Your task to perform on an android device: Do I have any events today? Image 0: 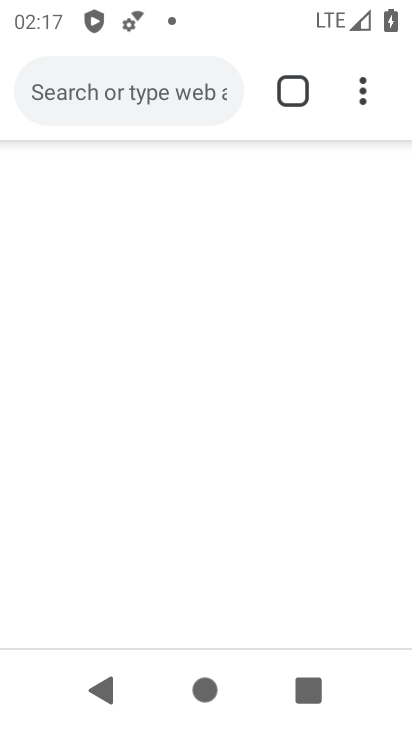
Step 0: press home button
Your task to perform on an android device: Do I have any events today? Image 1: 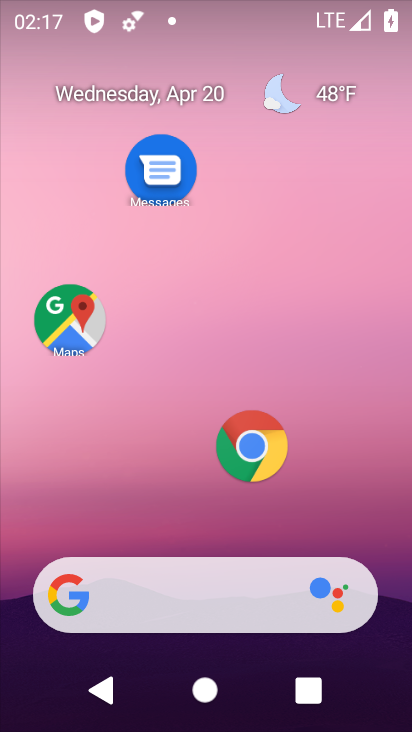
Step 1: drag from (221, 533) to (288, 16)
Your task to perform on an android device: Do I have any events today? Image 2: 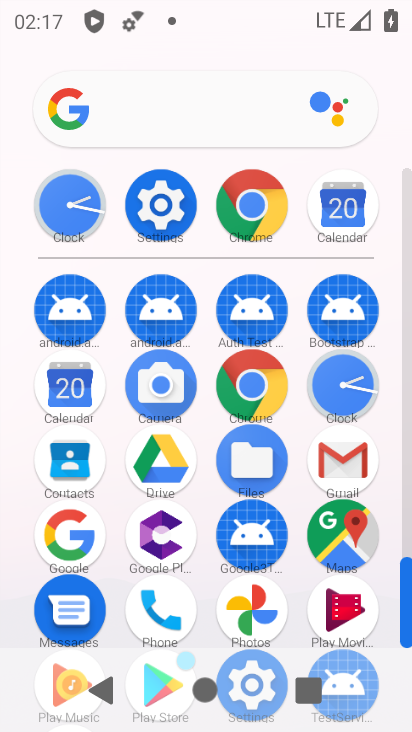
Step 2: click (70, 381)
Your task to perform on an android device: Do I have any events today? Image 3: 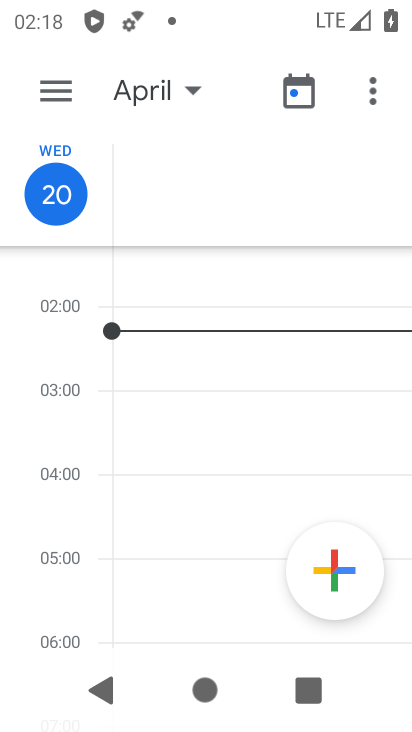
Step 3: click (59, 86)
Your task to perform on an android device: Do I have any events today? Image 4: 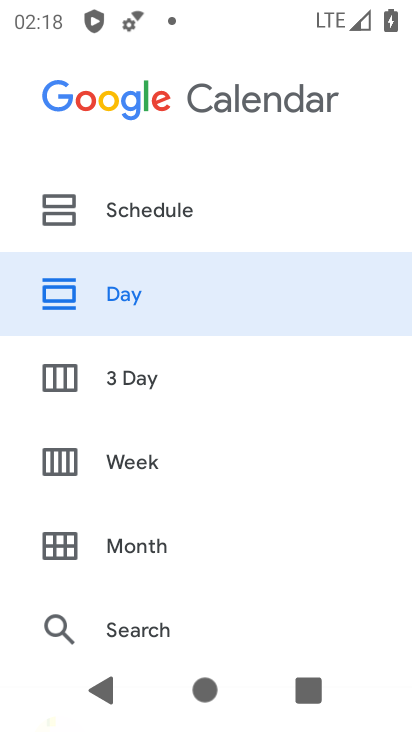
Step 4: drag from (78, 590) to (106, 170)
Your task to perform on an android device: Do I have any events today? Image 5: 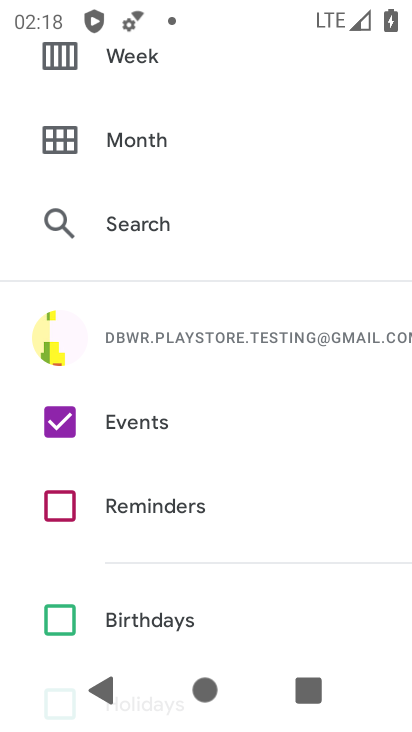
Step 5: drag from (162, 166) to (175, 717)
Your task to perform on an android device: Do I have any events today? Image 6: 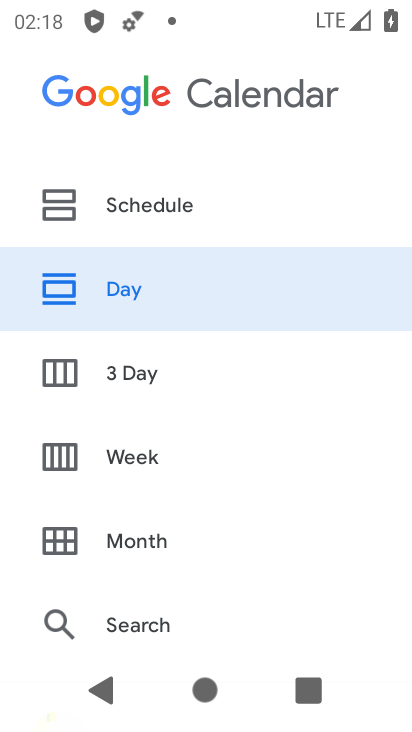
Step 6: click (99, 296)
Your task to perform on an android device: Do I have any events today? Image 7: 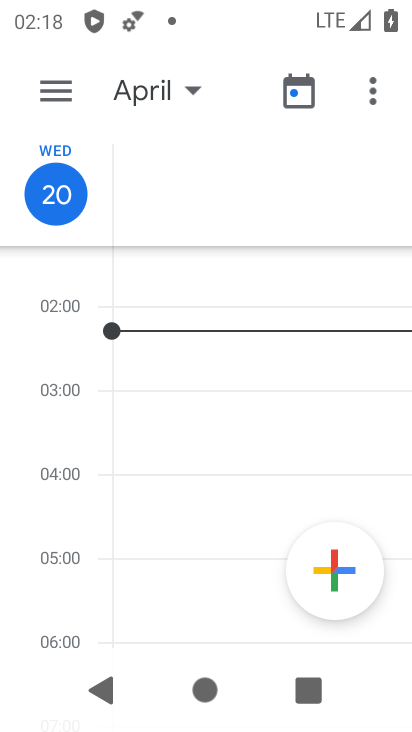
Step 7: task complete